Your task to perform on an android device: open chrome privacy settings Image 0: 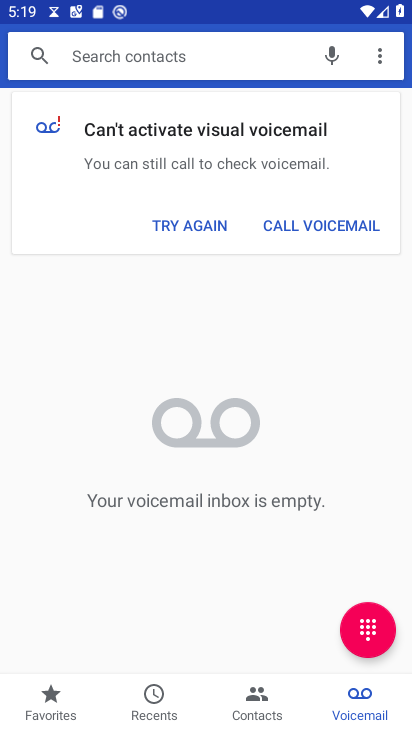
Step 0: press home button
Your task to perform on an android device: open chrome privacy settings Image 1: 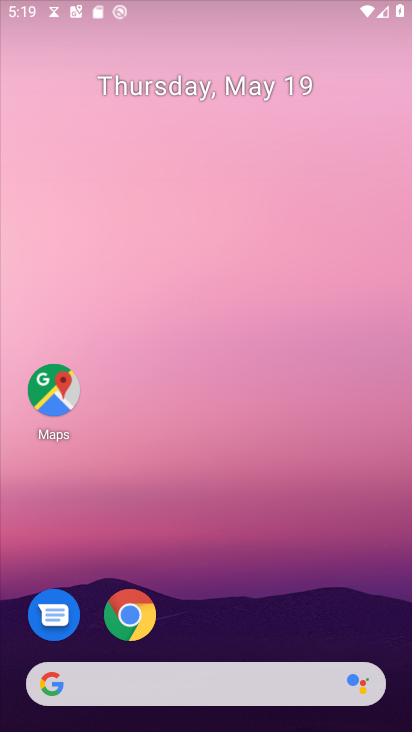
Step 1: drag from (255, 575) to (277, 80)
Your task to perform on an android device: open chrome privacy settings Image 2: 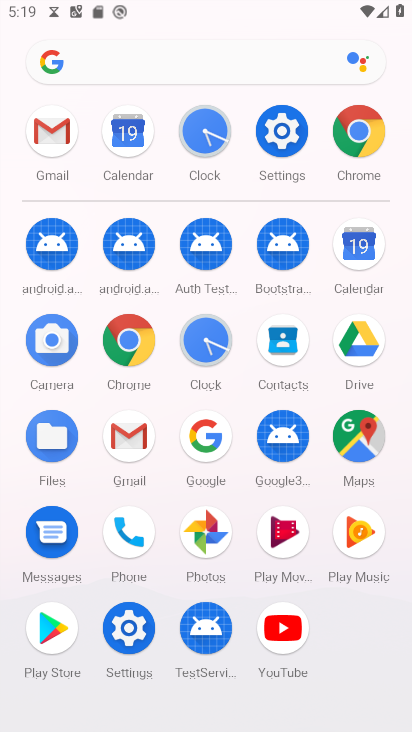
Step 2: click (122, 343)
Your task to perform on an android device: open chrome privacy settings Image 3: 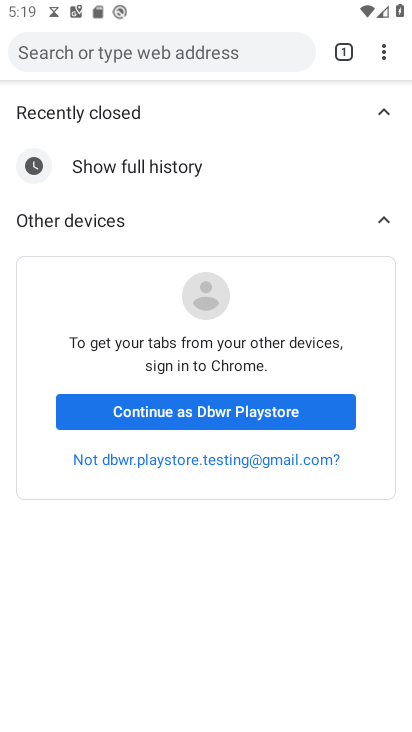
Step 3: drag from (376, 50) to (187, 450)
Your task to perform on an android device: open chrome privacy settings Image 4: 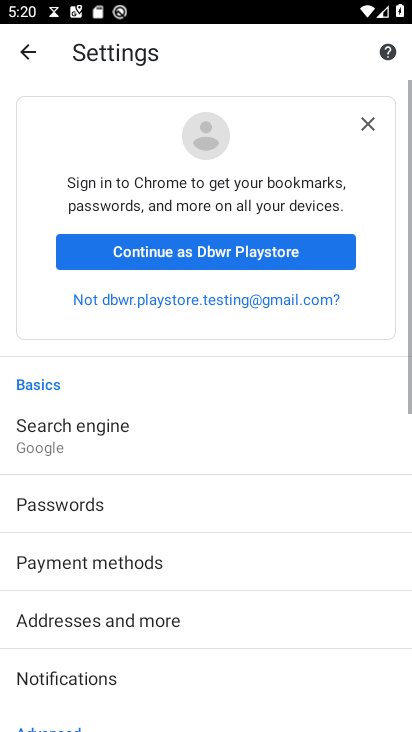
Step 4: drag from (226, 565) to (266, 35)
Your task to perform on an android device: open chrome privacy settings Image 5: 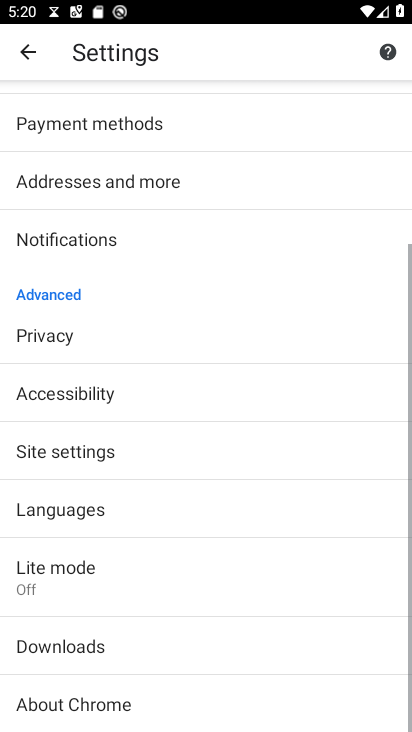
Step 5: click (91, 340)
Your task to perform on an android device: open chrome privacy settings Image 6: 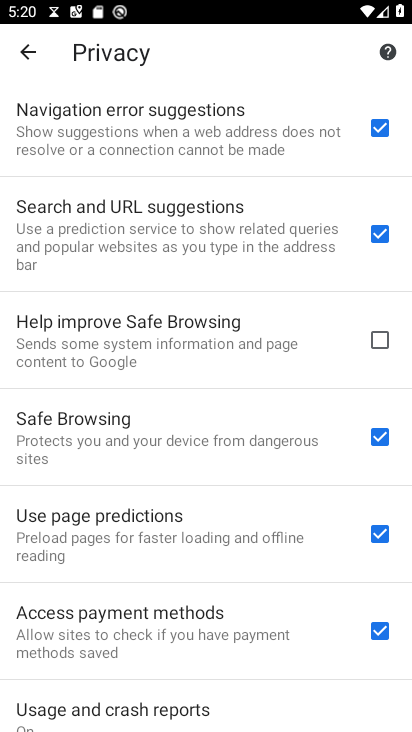
Step 6: task complete